Your task to perform on an android device: open app "Move to iOS" (install if not already installed) Image 0: 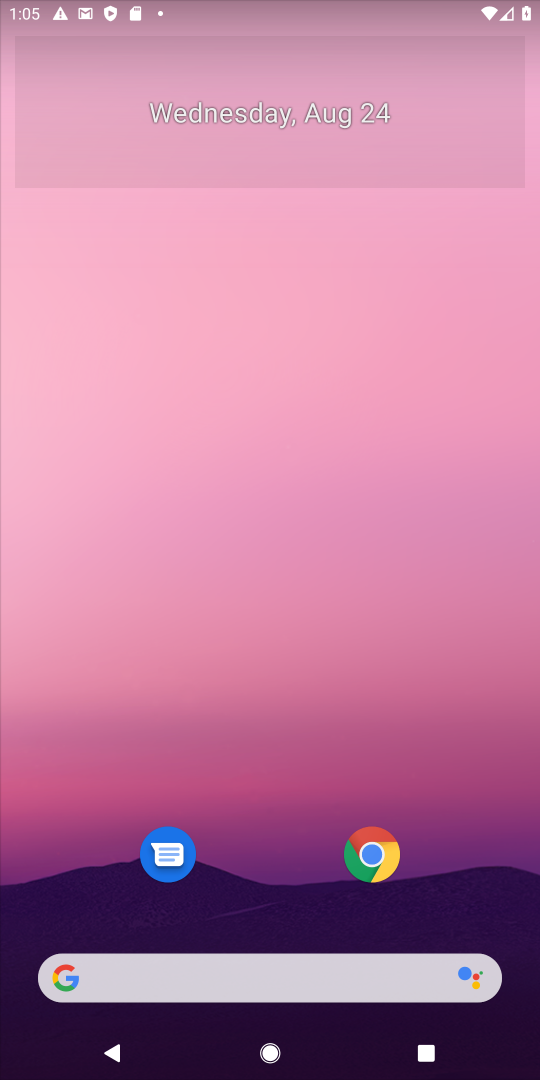
Step 0: press home button
Your task to perform on an android device: open app "Move to iOS" (install if not already installed) Image 1: 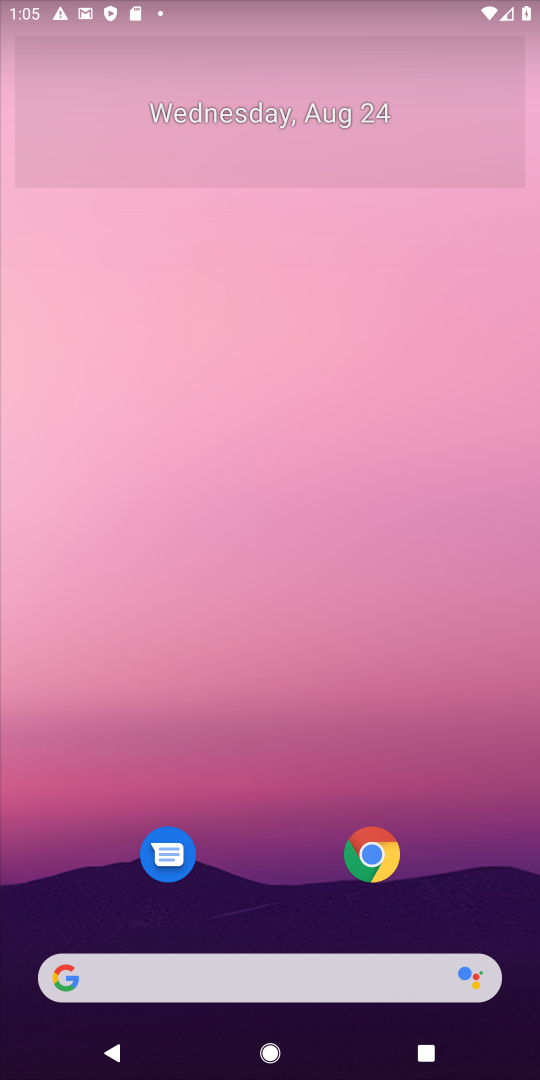
Step 1: drag from (463, 749) to (472, 130)
Your task to perform on an android device: open app "Move to iOS" (install if not already installed) Image 2: 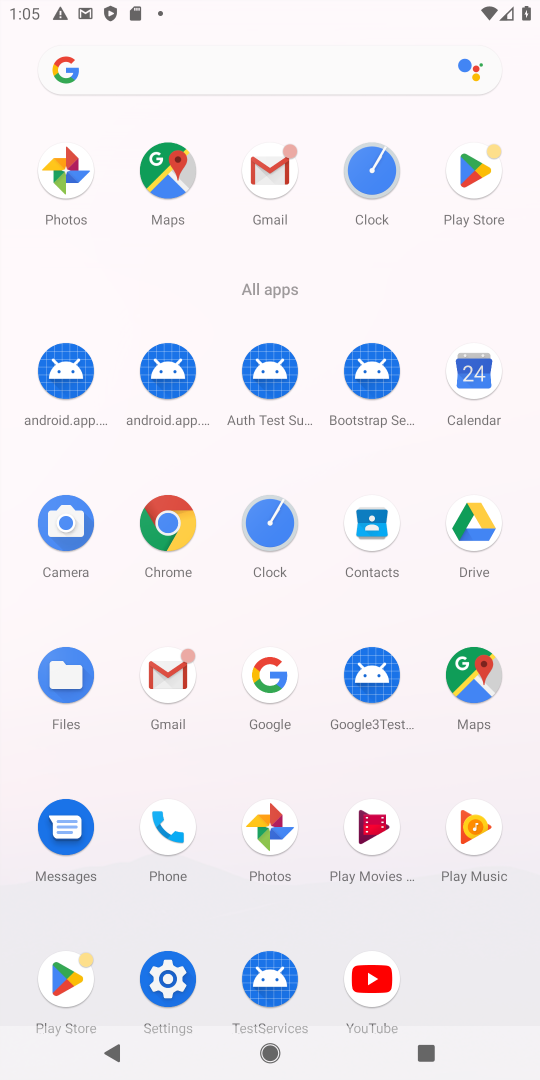
Step 2: click (479, 167)
Your task to perform on an android device: open app "Move to iOS" (install if not already installed) Image 3: 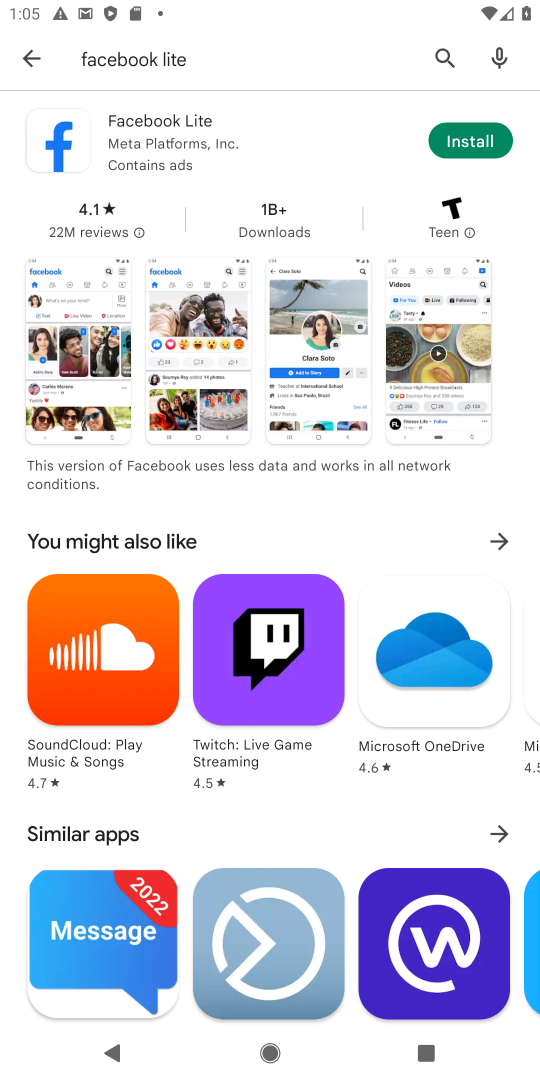
Step 3: press back button
Your task to perform on an android device: open app "Move to iOS" (install if not already installed) Image 4: 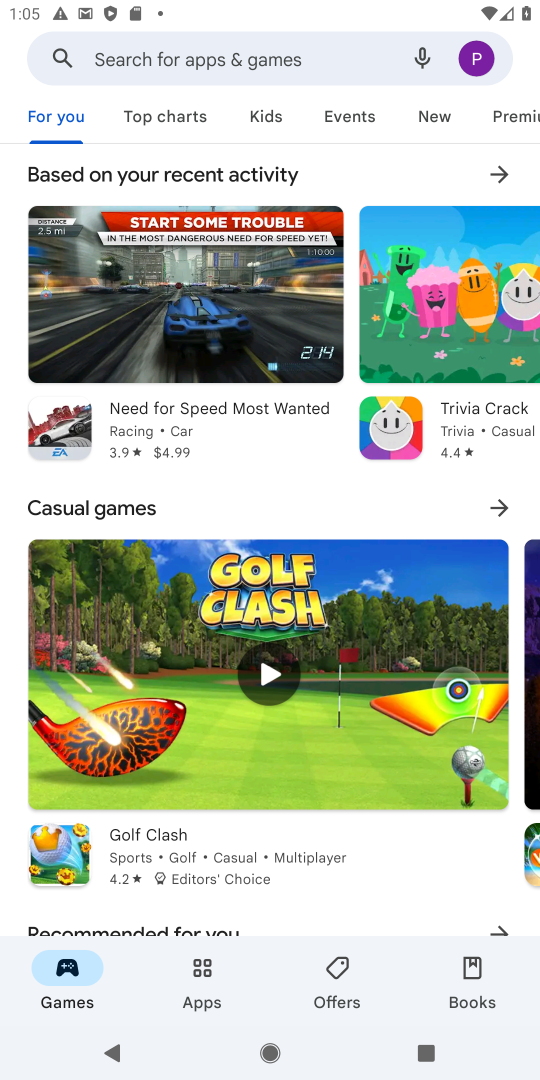
Step 4: click (270, 57)
Your task to perform on an android device: open app "Move to iOS" (install if not already installed) Image 5: 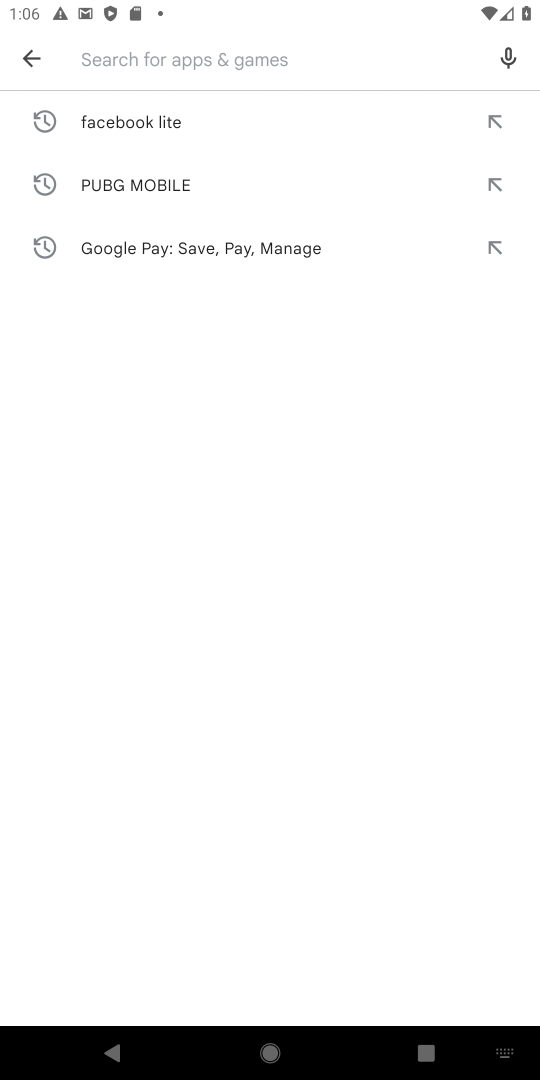
Step 5: press enter
Your task to perform on an android device: open app "Move to iOS" (install if not already installed) Image 6: 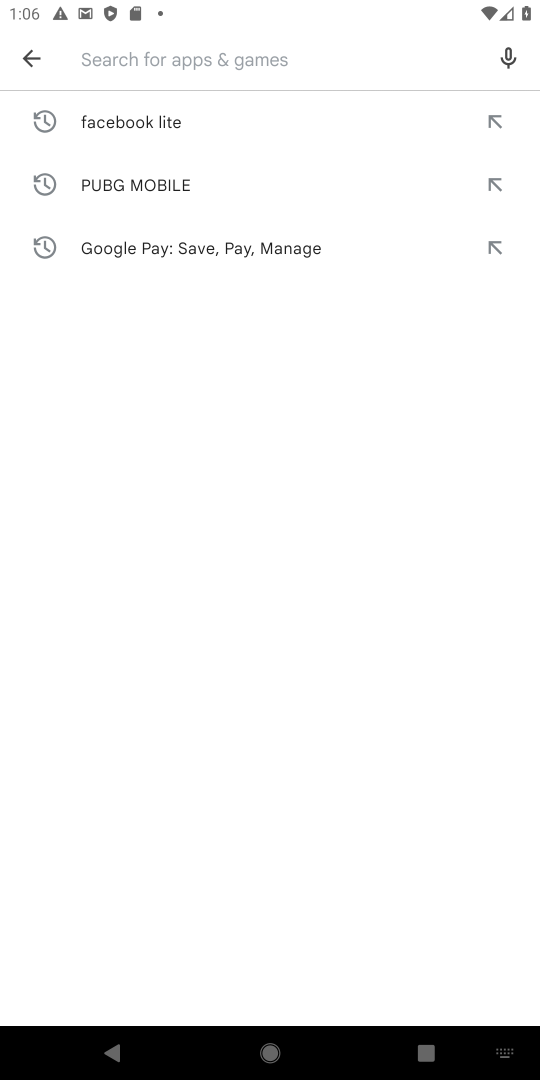
Step 6: type "move to ios"
Your task to perform on an android device: open app "Move to iOS" (install if not already installed) Image 7: 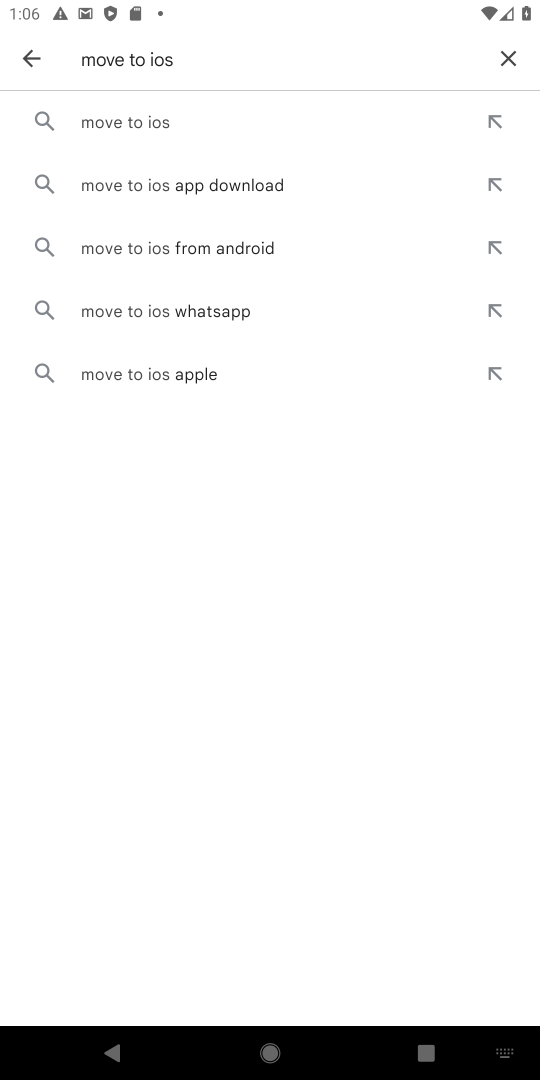
Step 7: click (182, 130)
Your task to perform on an android device: open app "Move to iOS" (install if not already installed) Image 8: 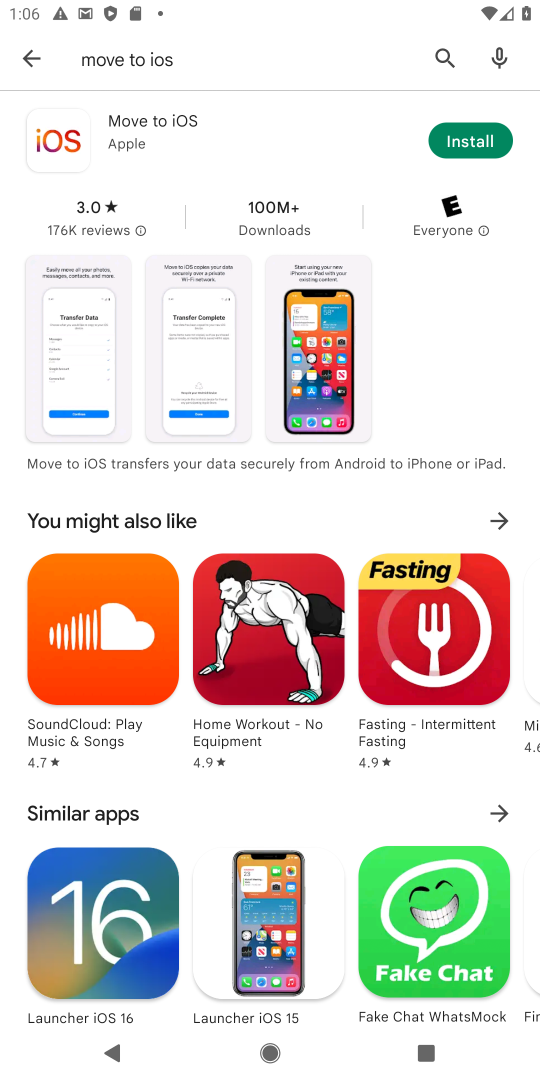
Step 8: click (480, 135)
Your task to perform on an android device: open app "Move to iOS" (install if not already installed) Image 9: 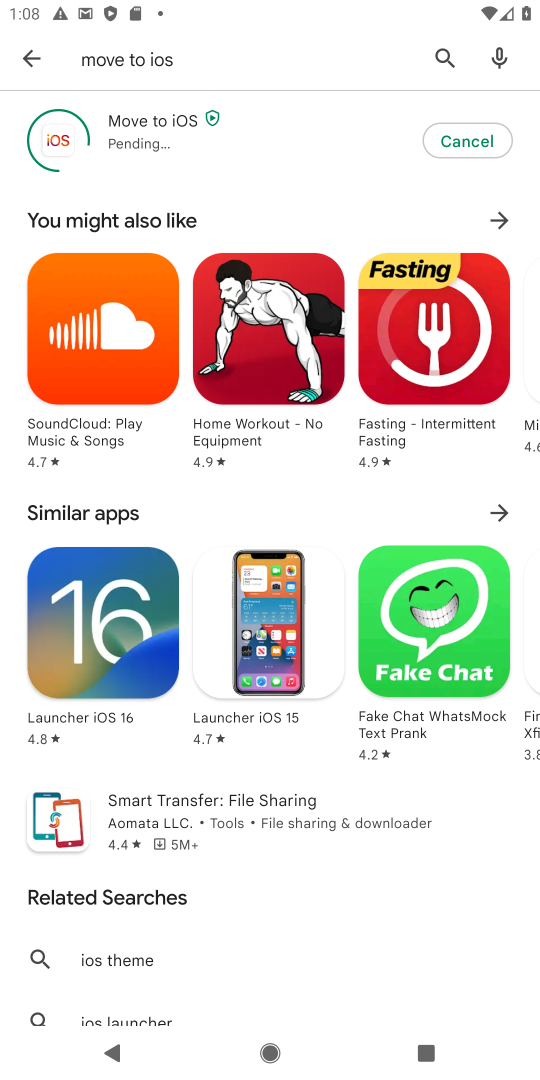
Step 9: task complete